Your task to perform on an android device: Go to Reddit.com Image 0: 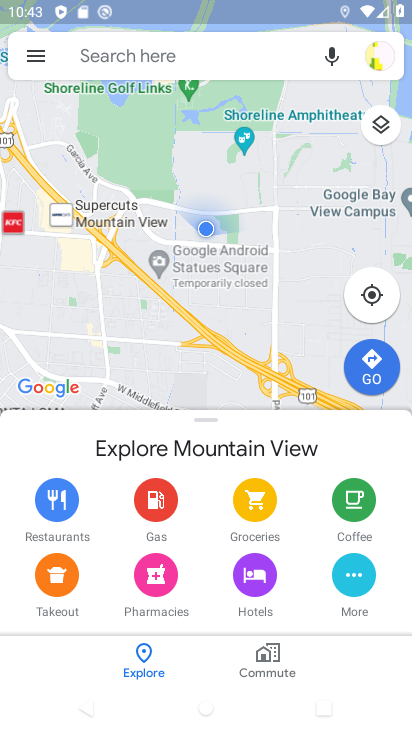
Step 0: press home button
Your task to perform on an android device: Go to Reddit.com Image 1: 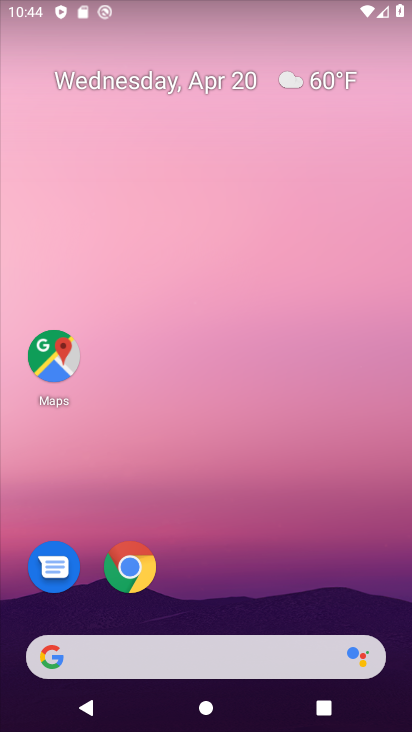
Step 1: click (134, 562)
Your task to perform on an android device: Go to Reddit.com Image 2: 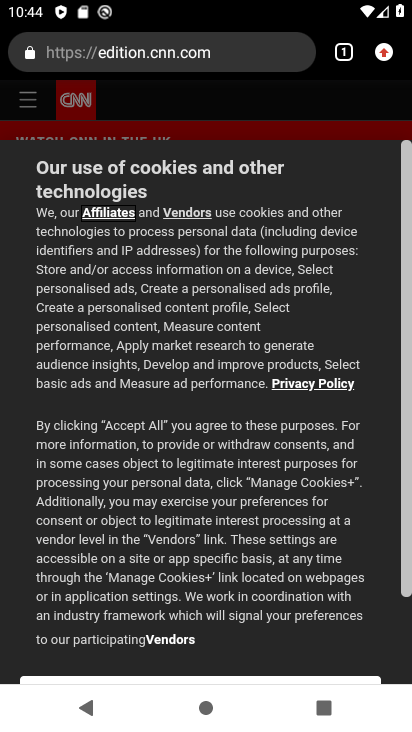
Step 2: click (199, 51)
Your task to perform on an android device: Go to Reddit.com Image 3: 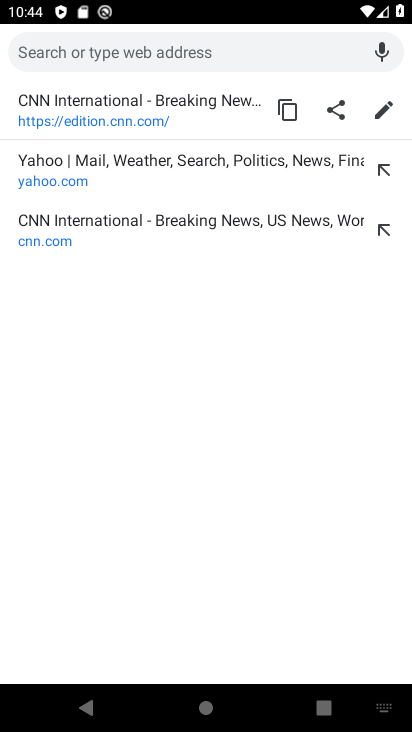
Step 3: type "reddit.com"
Your task to perform on an android device: Go to Reddit.com Image 4: 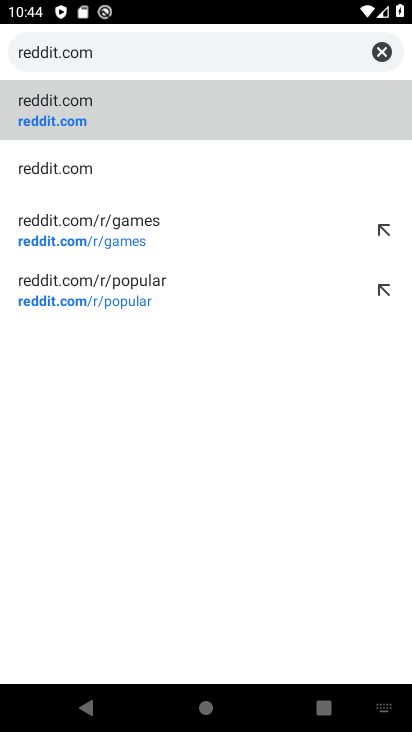
Step 4: click (238, 125)
Your task to perform on an android device: Go to Reddit.com Image 5: 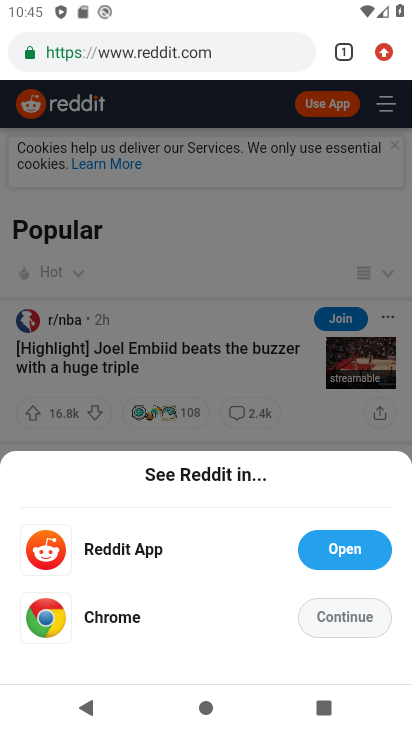
Step 5: click (299, 340)
Your task to perform on an android device: Go to Reddit.com Image 6: 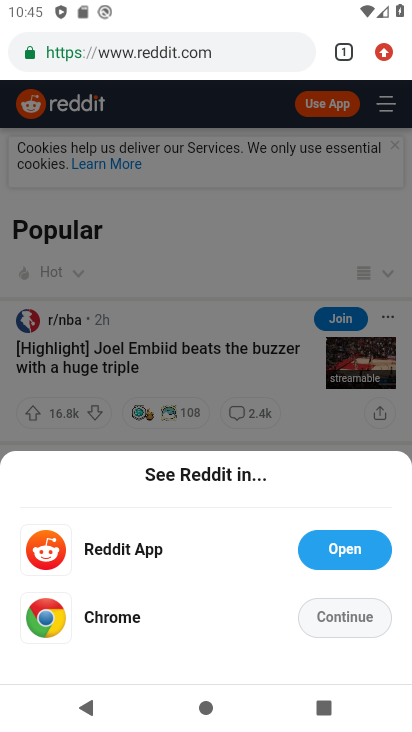
Step 6: click (352, 620)
Your task to perform on an android device: Go to Reddit.com Image 7: 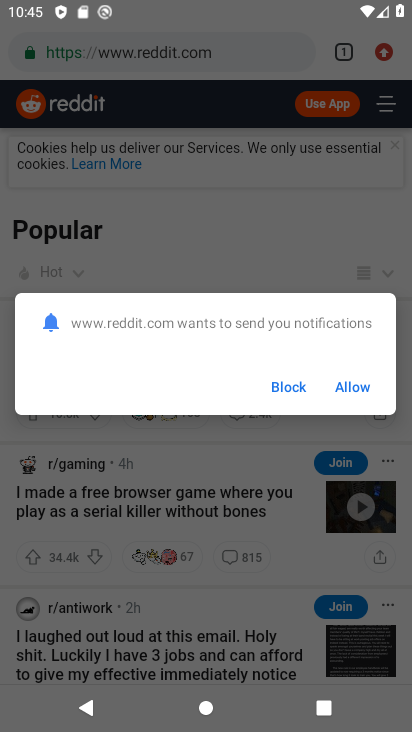
Step 7: click (289, 393)
Your task to perform on an android device: Go to Reddit.com Image 8: 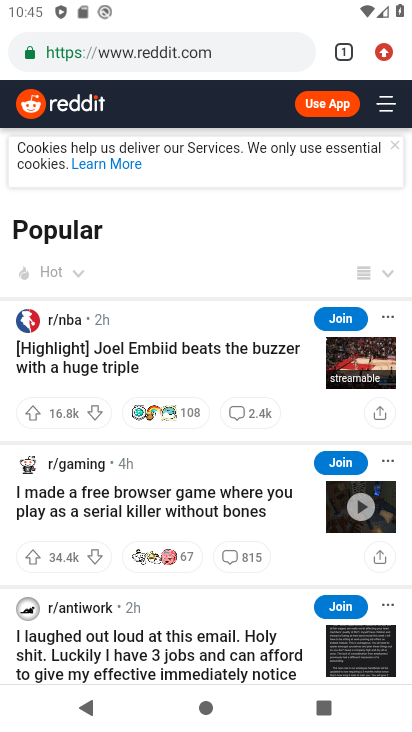
Step 8: task complete